Your task to perform on an android device: Open eBay Image 0: 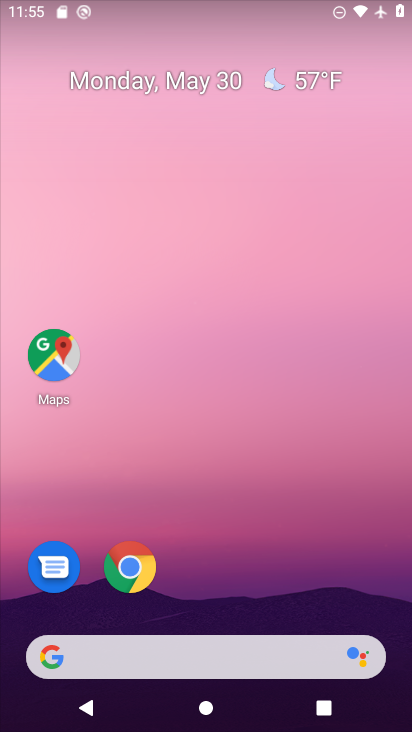
Step 0: click (136, 568)
Your task to perform on an android device: Open eBay Image 1: 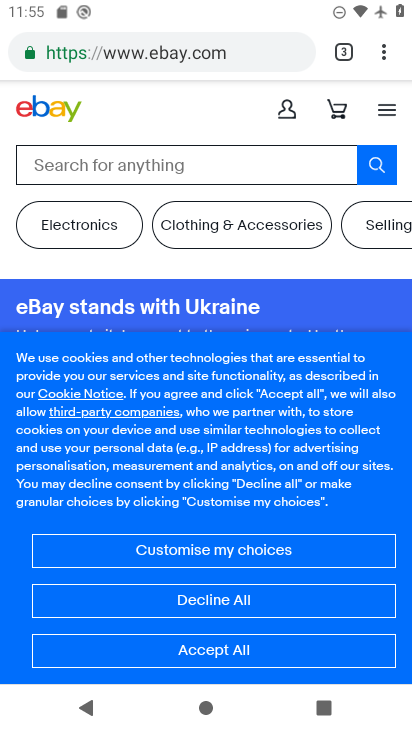
Step 1: task complete